Your task to perform on an android device: open app "AliExpress" Image 0: 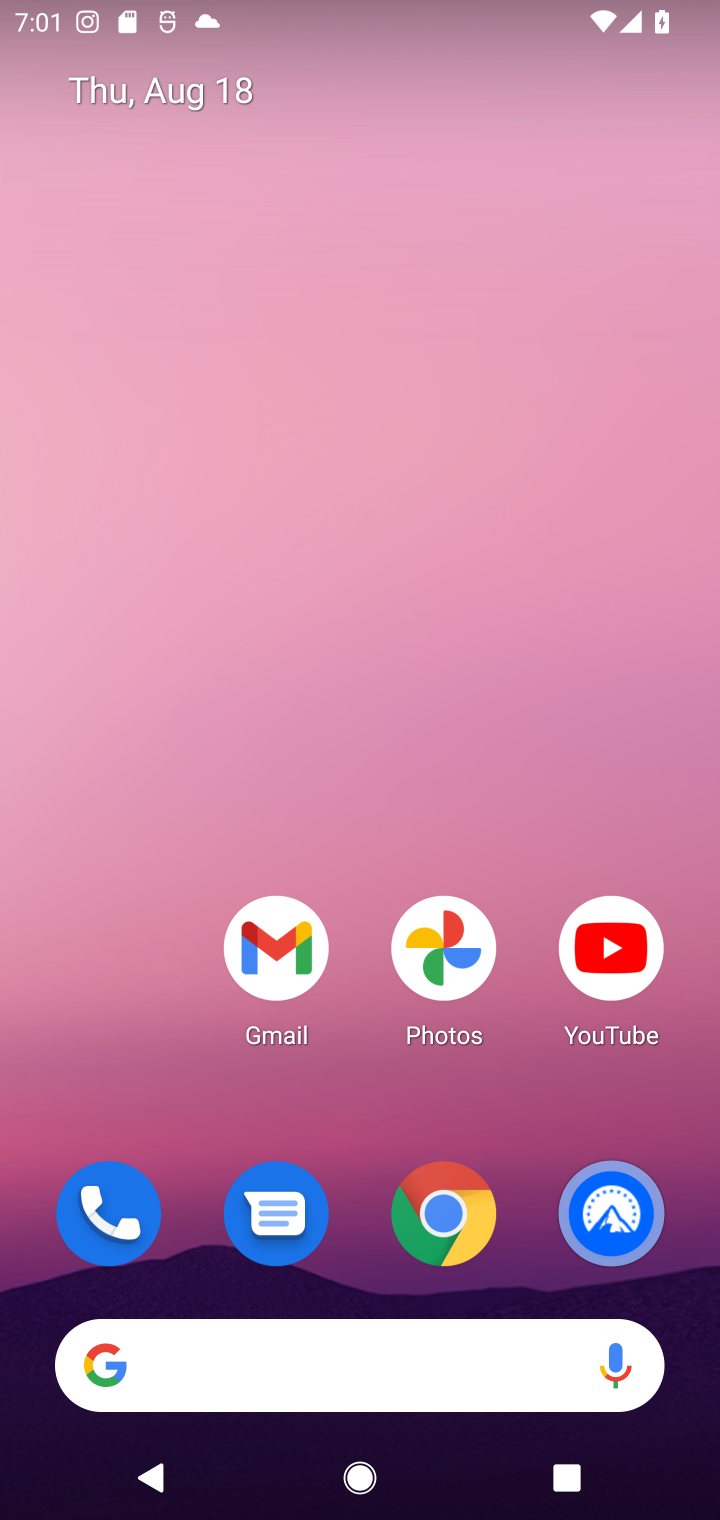
Step 0: press home button
Your task to perform on an android device: open app "AliExpress" Image 1: 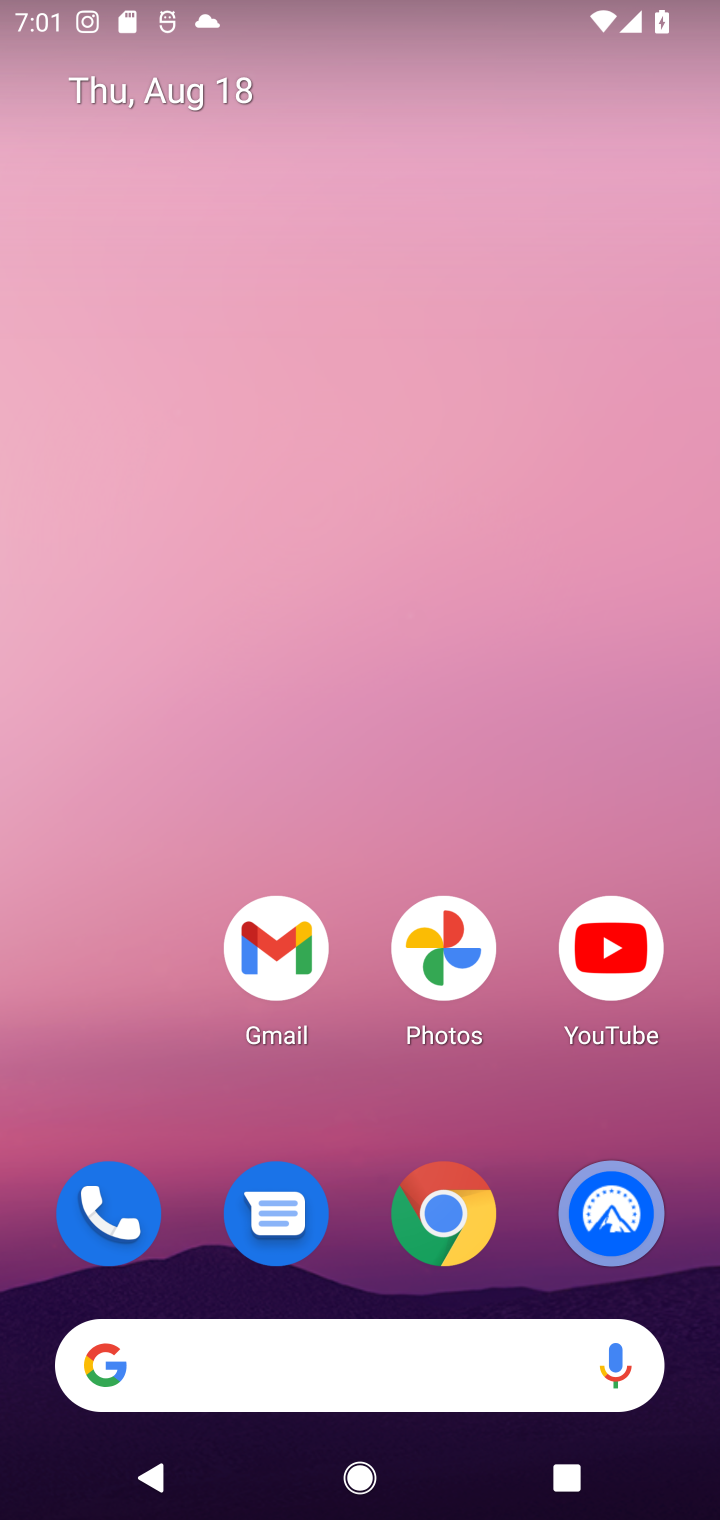
Step 1: drag from (365, 1105) to (418, 7)
Your task to perform on an android device: open app "AliExpress" Image 2: 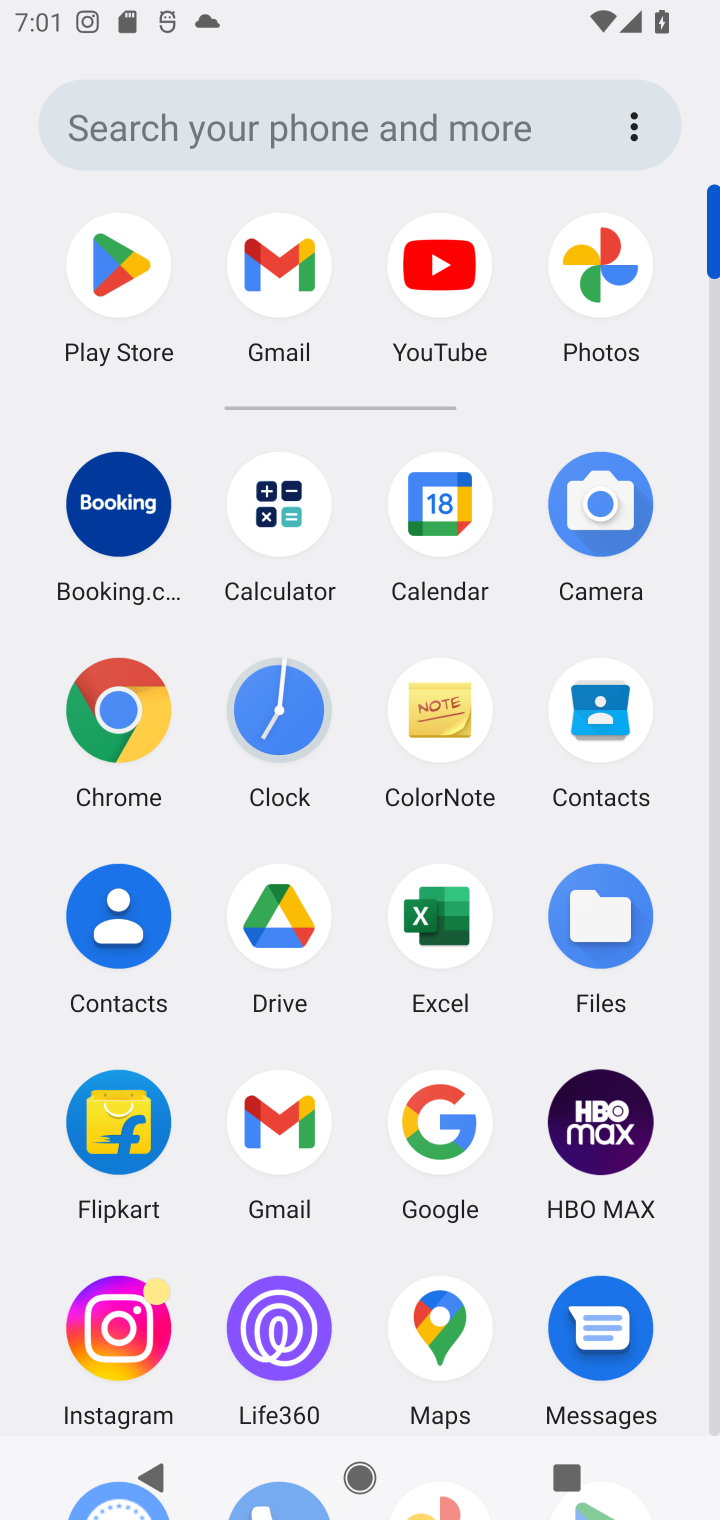
Step 2: click (103, 247)
Your task to perform on an android device: open app "AliExpress" Image 3: 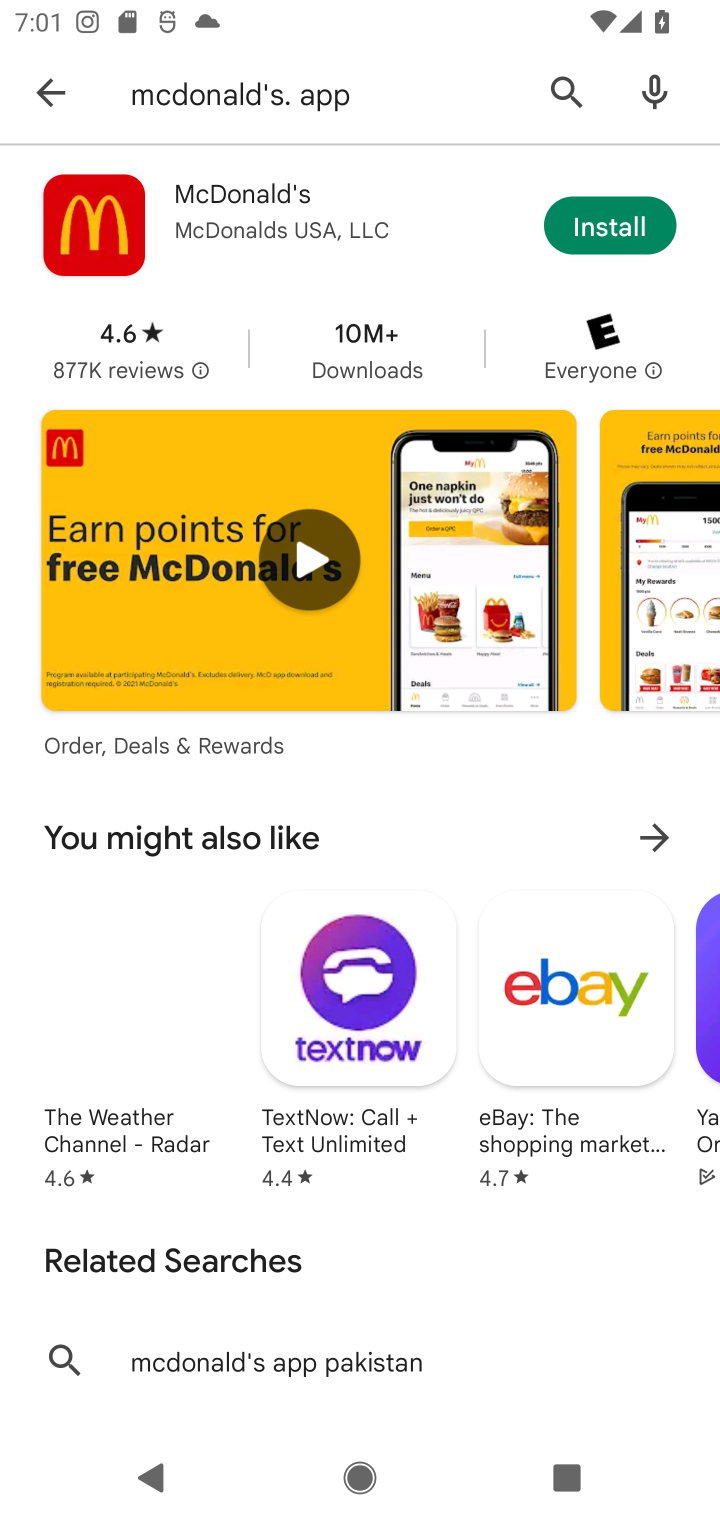
Step 3: click (563, 83)
Your task to perform on an android device: open app "AliExpress" Image 4: 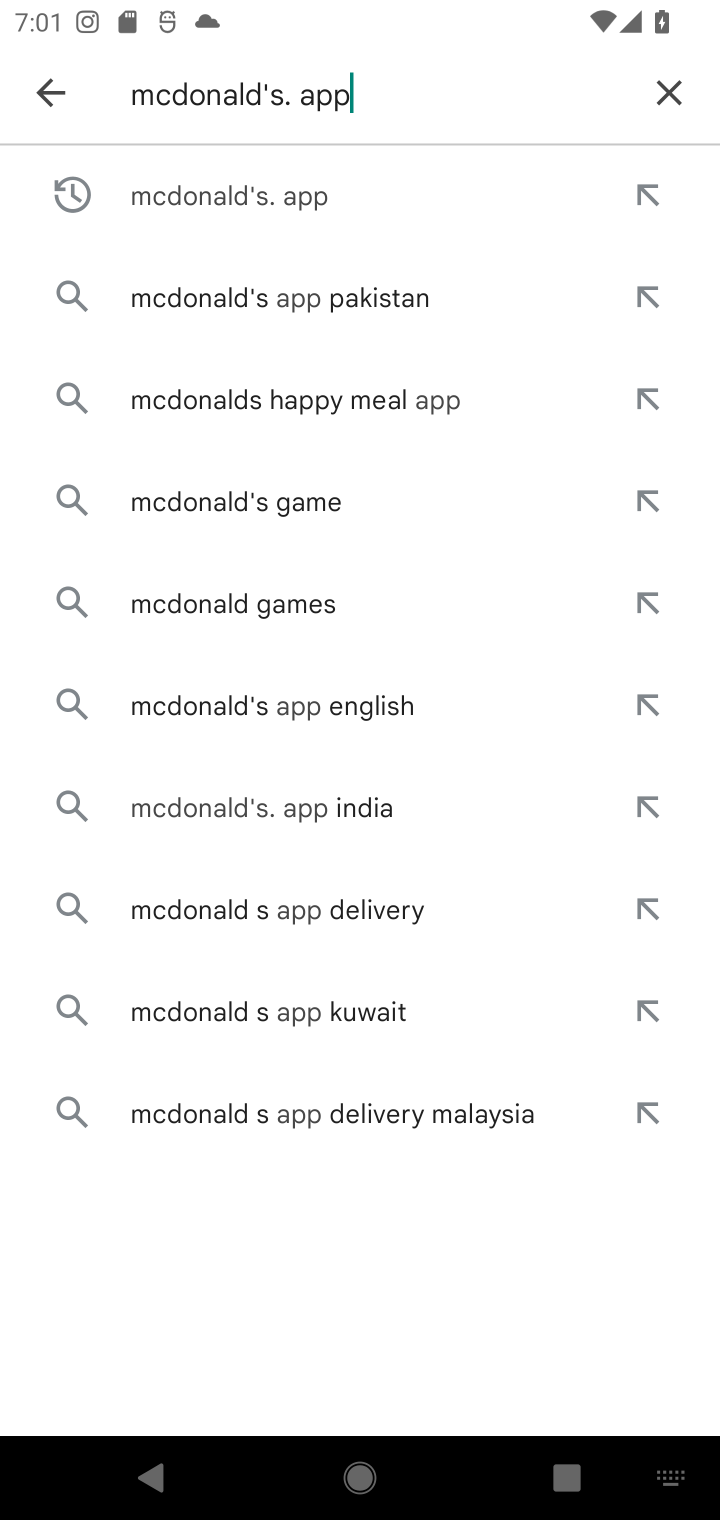
Step 4: click (668, 102)
Your task to perform on an android device: open app "AliExpress" Image 5: 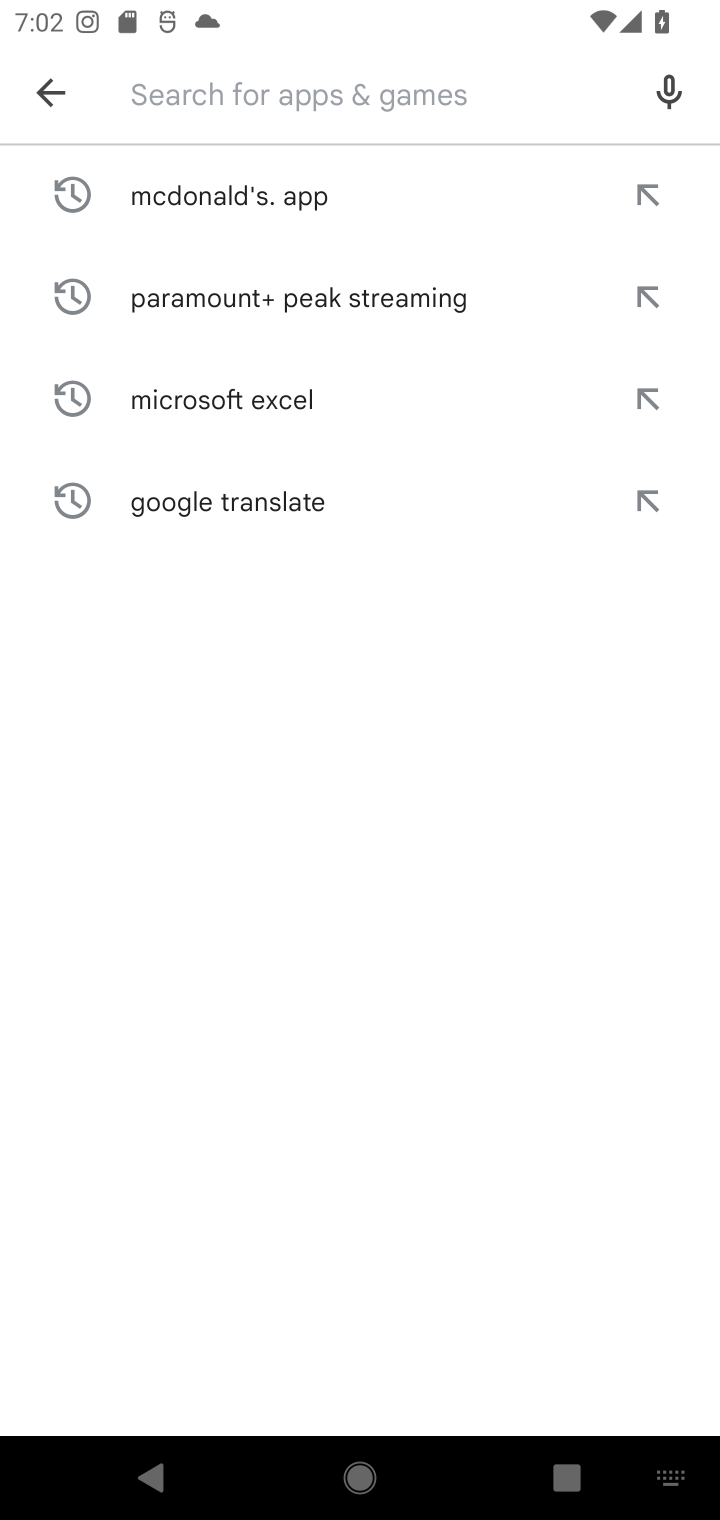
Step 5: type "AliExpress"
Your task to perform on an android device: open app "AliExpress" Image 6: 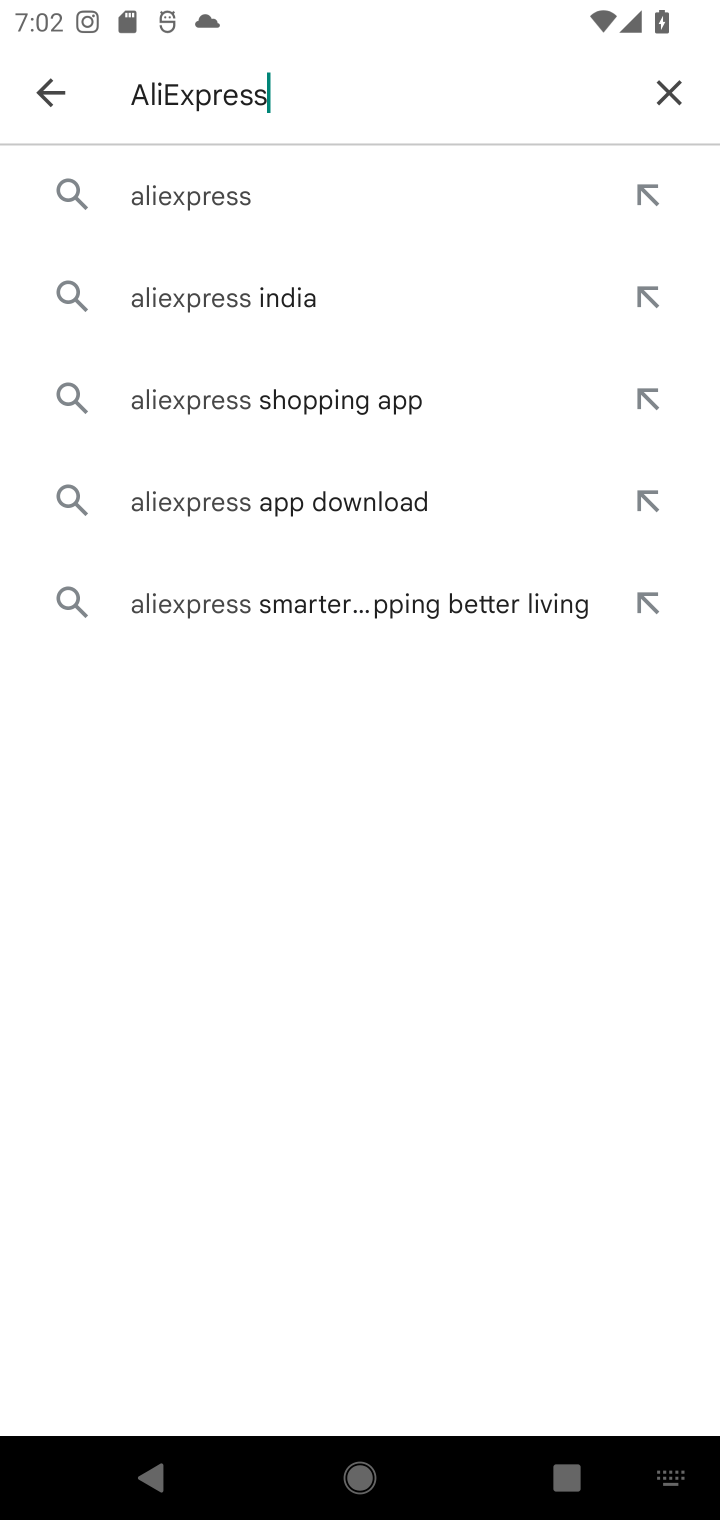
Step 6: click (218, 198)
Your task to perform on an android device: open app "AliExpress" Image 7: 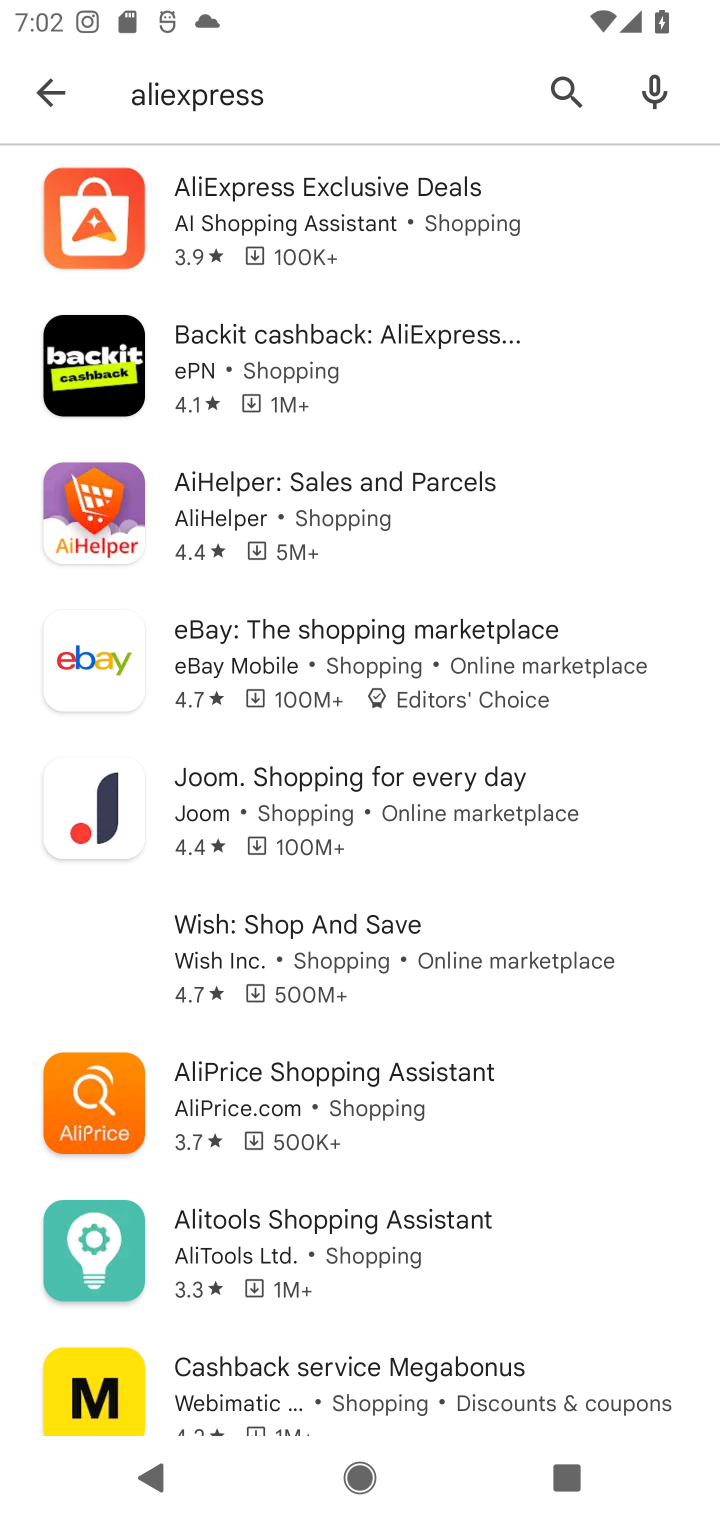
Step 7: click (244, 213)
Your task to perform on an android device: open app "AliExpress" Image 8: 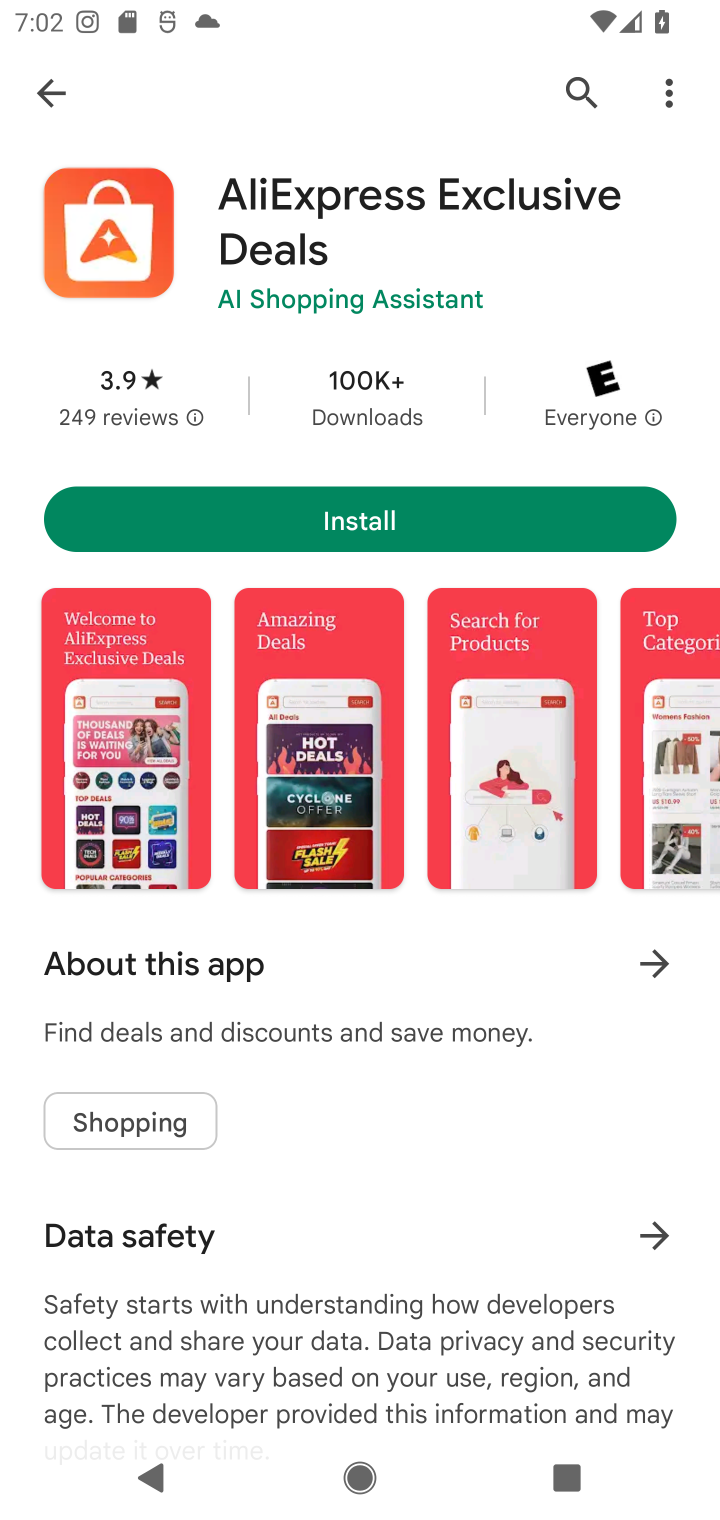
Step 8: task complete